Your task to perform on an android device: Google the capital of Venezuela Image 0: 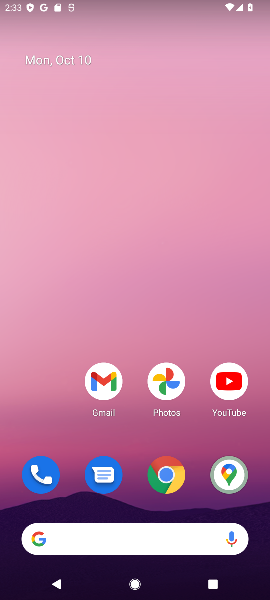
Step 0: drag from (166, 539) to (171, 250)
Your task to perform on an android device: Google the capital of Venezuela Image 1: 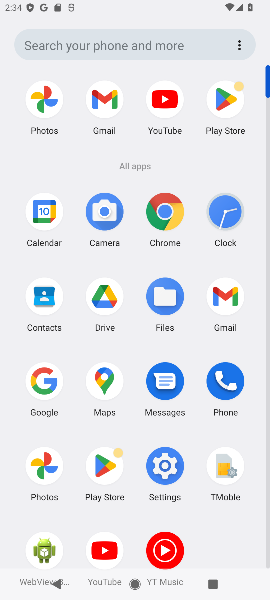
Step 1: click (46, 385)
Your task to perform on an android device: Google the capital of Venezuela Image 2: 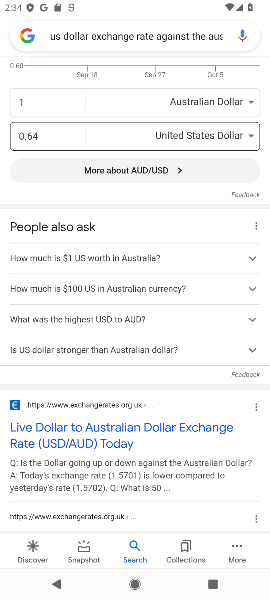
Step 2: click (188, 41)
Your task to perform on an android device: Google the capital of Venezuela Image 3: 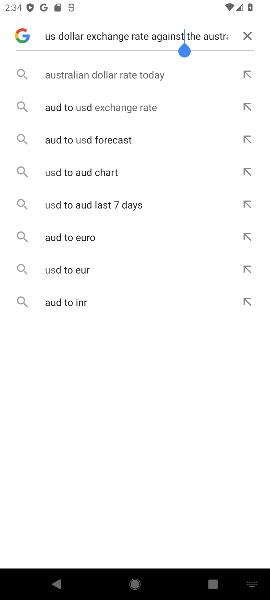
Step 3: click (250, 34)
Your task to perform on an android device: Google the capital of Venezuela Image 4: 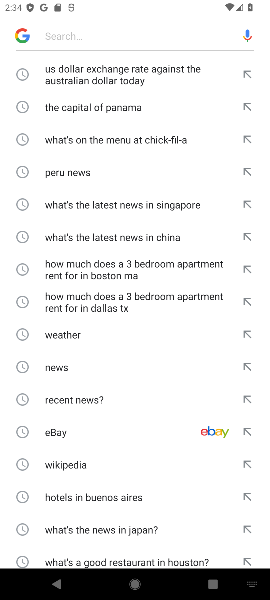
Step 4: type "capital of Venezuela"
Your task to perform on an android device: Google the capital of Venezuela Image 5: 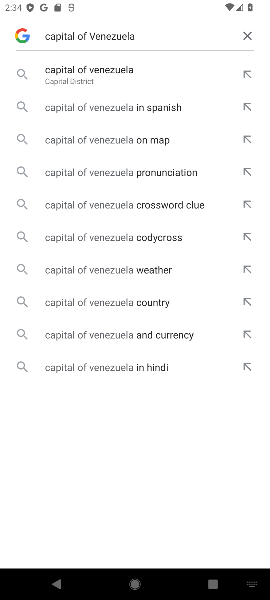
Step 5: click (147, 87)
Your task to perform on an android device: Google the capital of Venezuela Image 6: 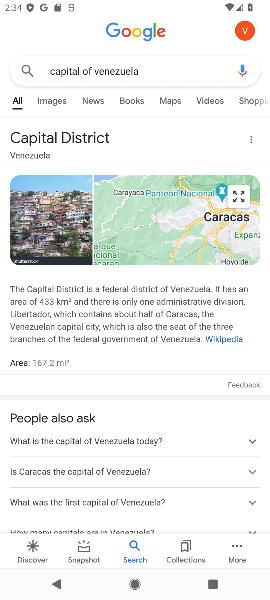
Step 6: click (107, 328)
Your task to perform on an android device: Google the capital of Venezuela Image 7: 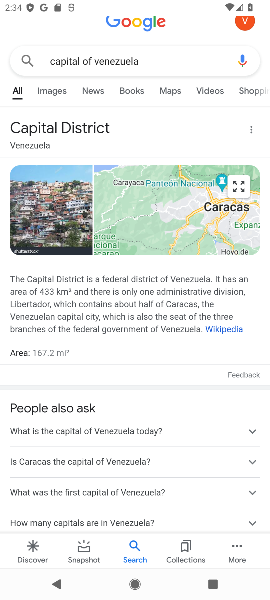
Step 7: task complete